Your task to perform on an android device: Go to location settings Image 0: 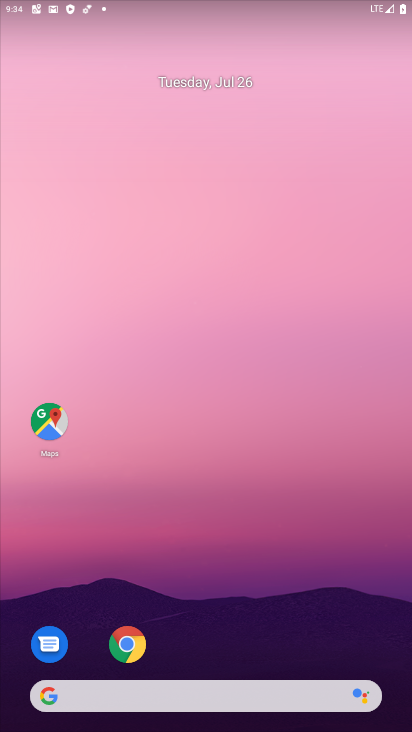
Step 0: drag from (253, 631) to (273, 0)
Your task to perform on an android device: Go to location settings Image 1: 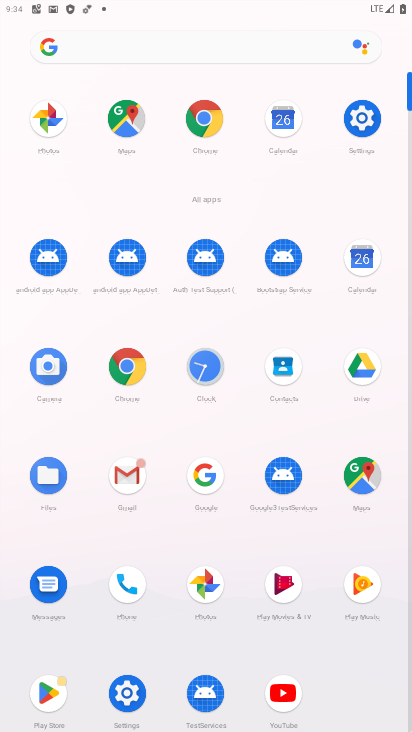
Step 1: click (361, 122)
Your task to perform on an android device: Go to location settings Image 2: 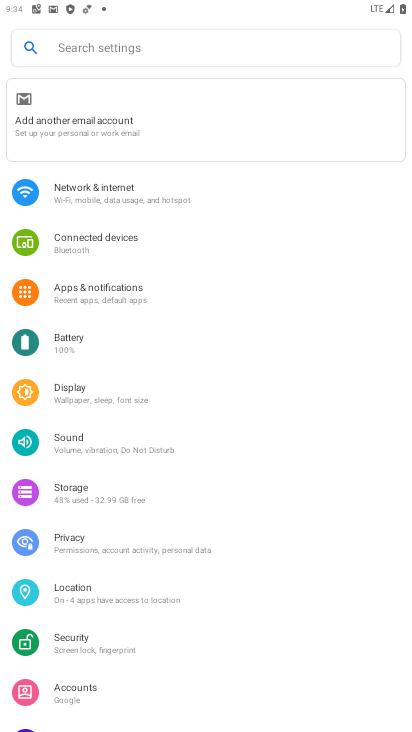
Step 2: click (75, 581)
Your task to perform on an android device: Go to location settings Image 3: 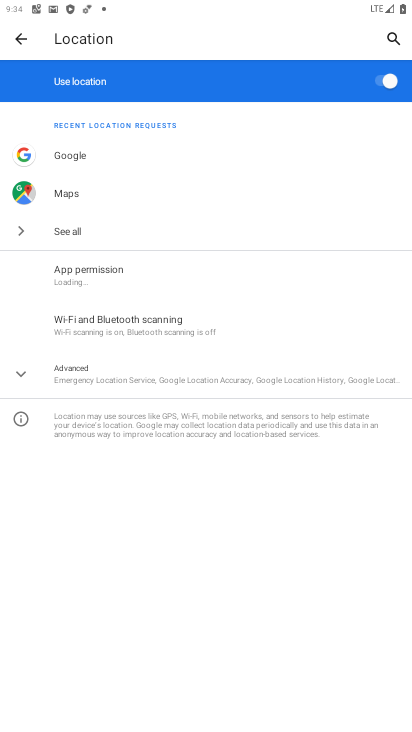
Step 3: task complete